Your task to perform on an android device: Do I have any events tomorrow? Image 0: 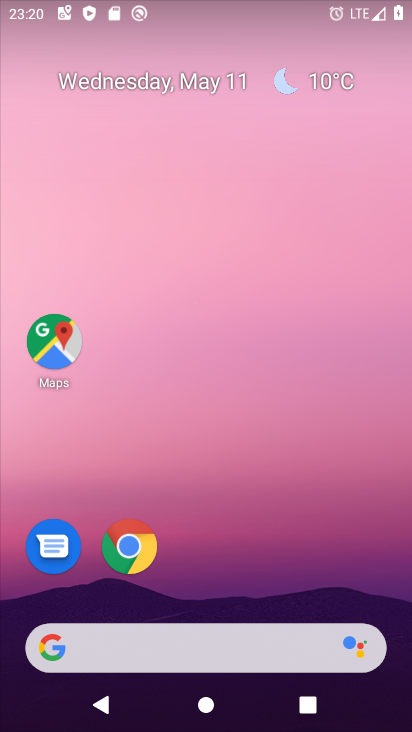
Step 0: drag from (392, 602) to (331, 102)
Your task to perform on an android device: Do I have any events tomorrow? Image 1: 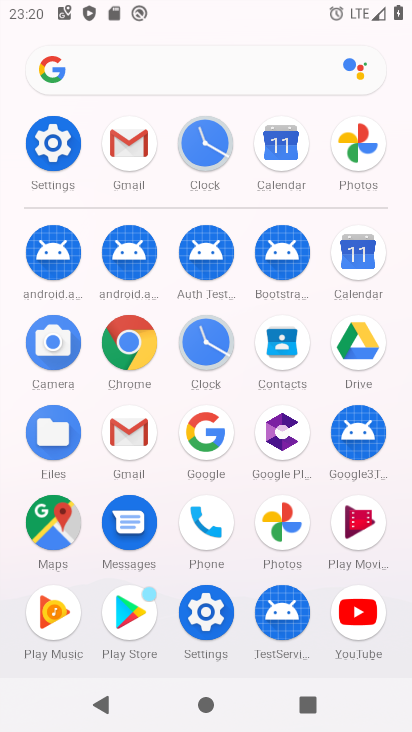
Step 1: click (357, 253)
Your task to perform on an android device: Do I have any events tomorrow? Image 2: 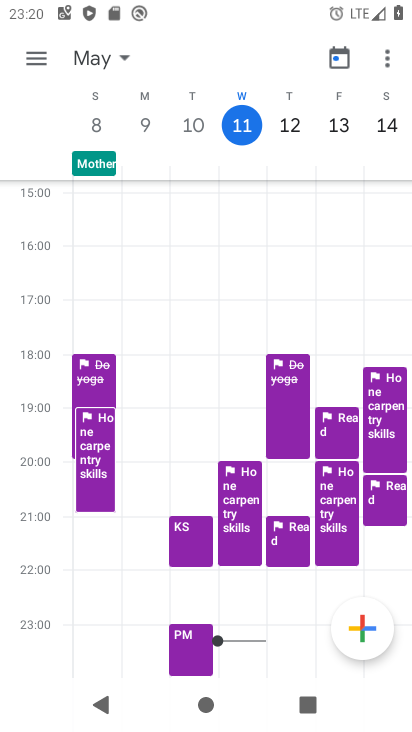
Step 2: click (26, 53)
Your task to perform on an android device: Do I have any events tomorrow? Image 3: 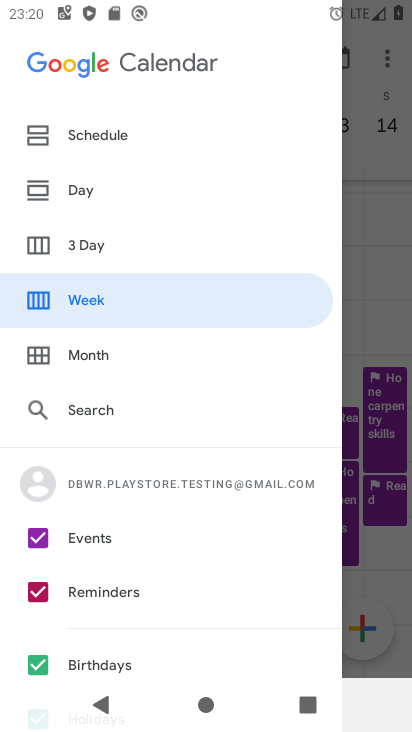
Step 3: click (86, 187)
Your task to perform on an android device: Do I have any events tomorrow? Image 4: 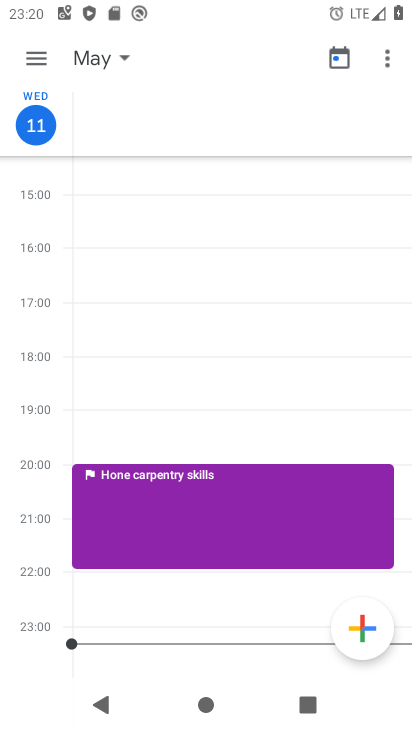
Step 4: click (117, 58)
Your task to perform on an android device: Do I have any events tomorrow? Image 5: 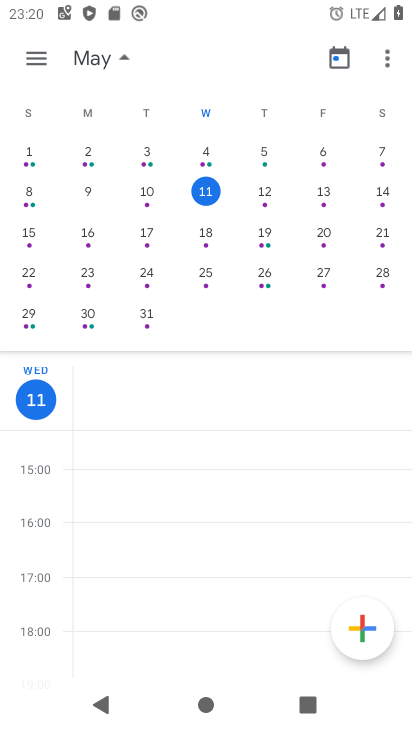
Step 5: click (263, 187)
Your task to perform on an android device: Do I have any events tomorrow? Image 6: 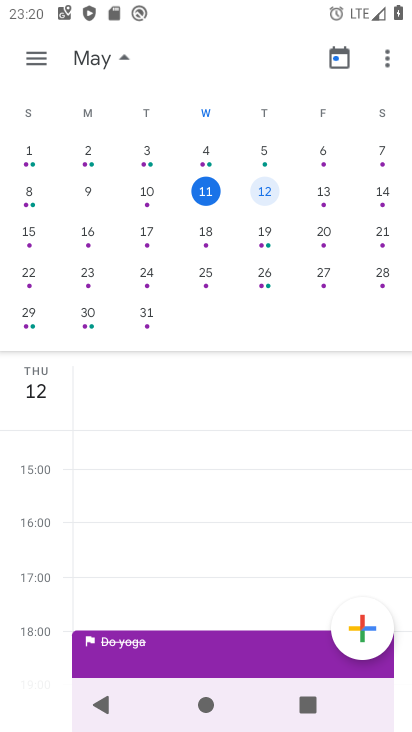
Step 6: task complete